Your task to perform on an android device: Search for "bose soundlink" on newegg.com, select the first entry, and add it to the cart. Image 0: 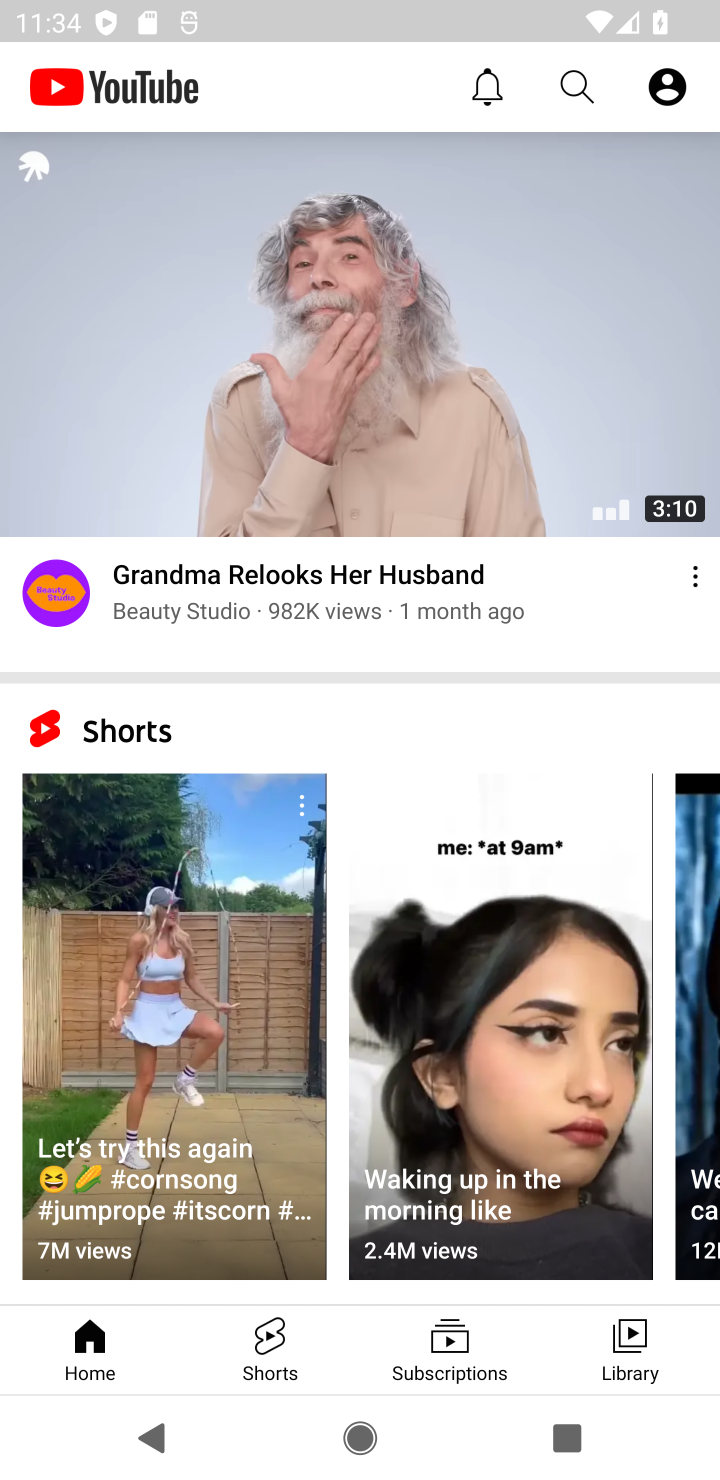
Step 0: press home button
Your task to perform on an android device: Search for "bose soundlink" on newegg.com, select the first entry, and add it to the cart. Image 1: 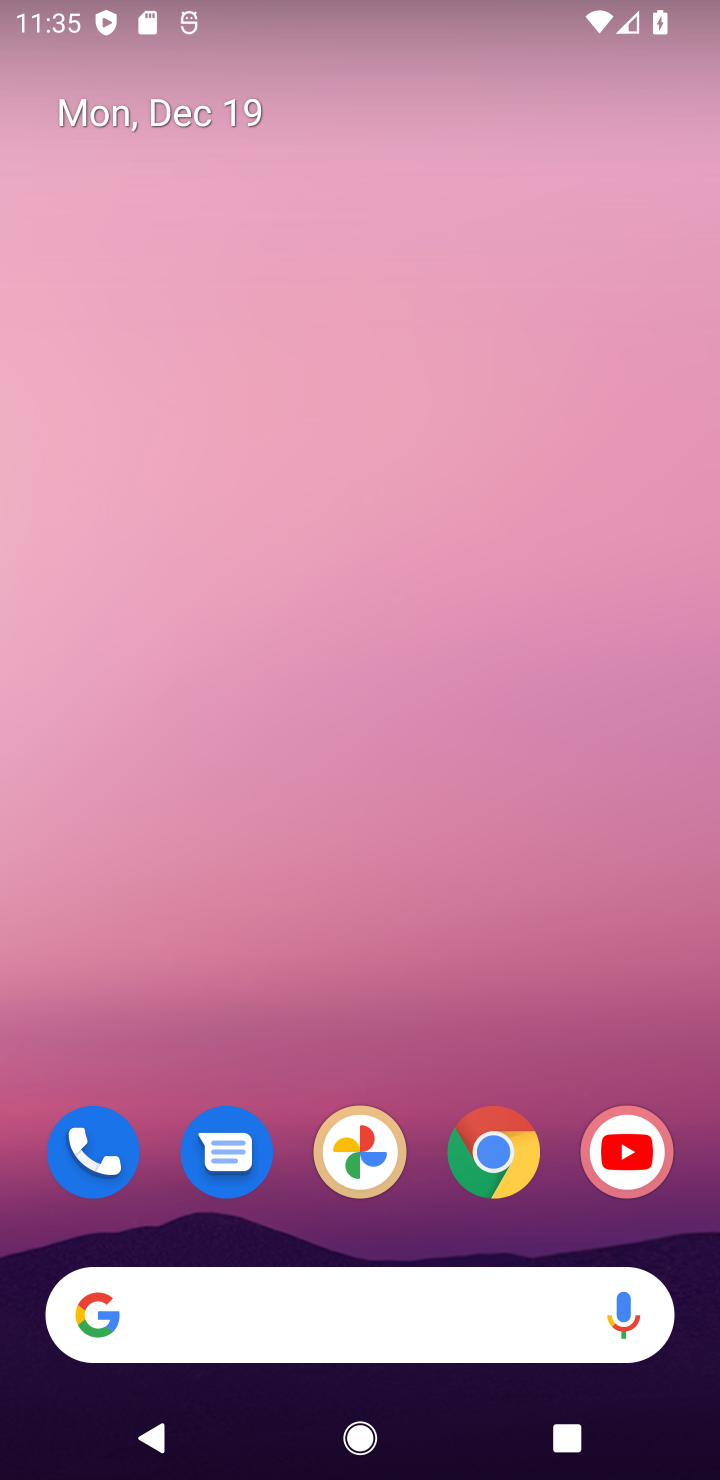
Step 1: click (477, 1132)
Your task to perform on an android device: Search for "bose soundlink" on newegg.com, select the first entry, and add it to the cart. Image 2: 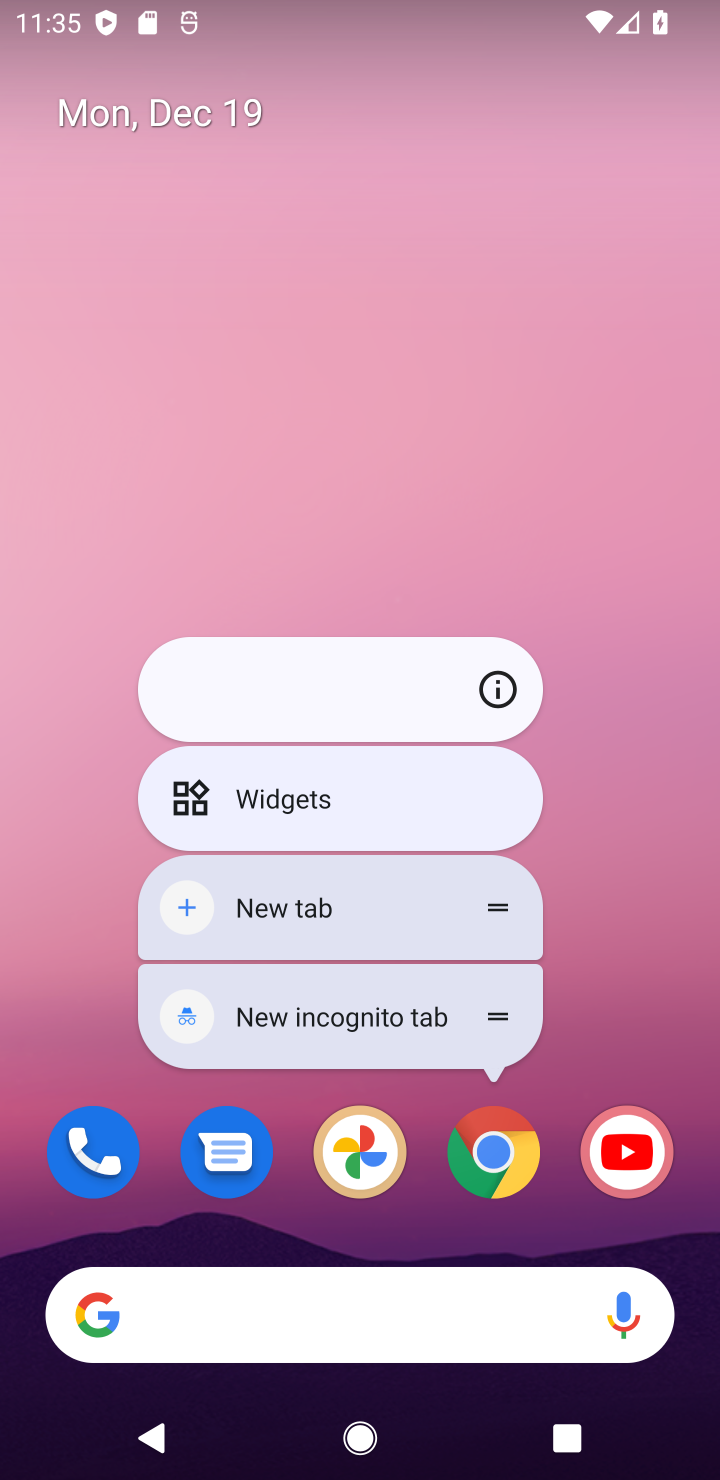
Step 2: click (493, 1141)
Your task to perform on an android device: Search for "bose soundlink" on newegg.com, select the first entry, and add it to the cart. Image 3: 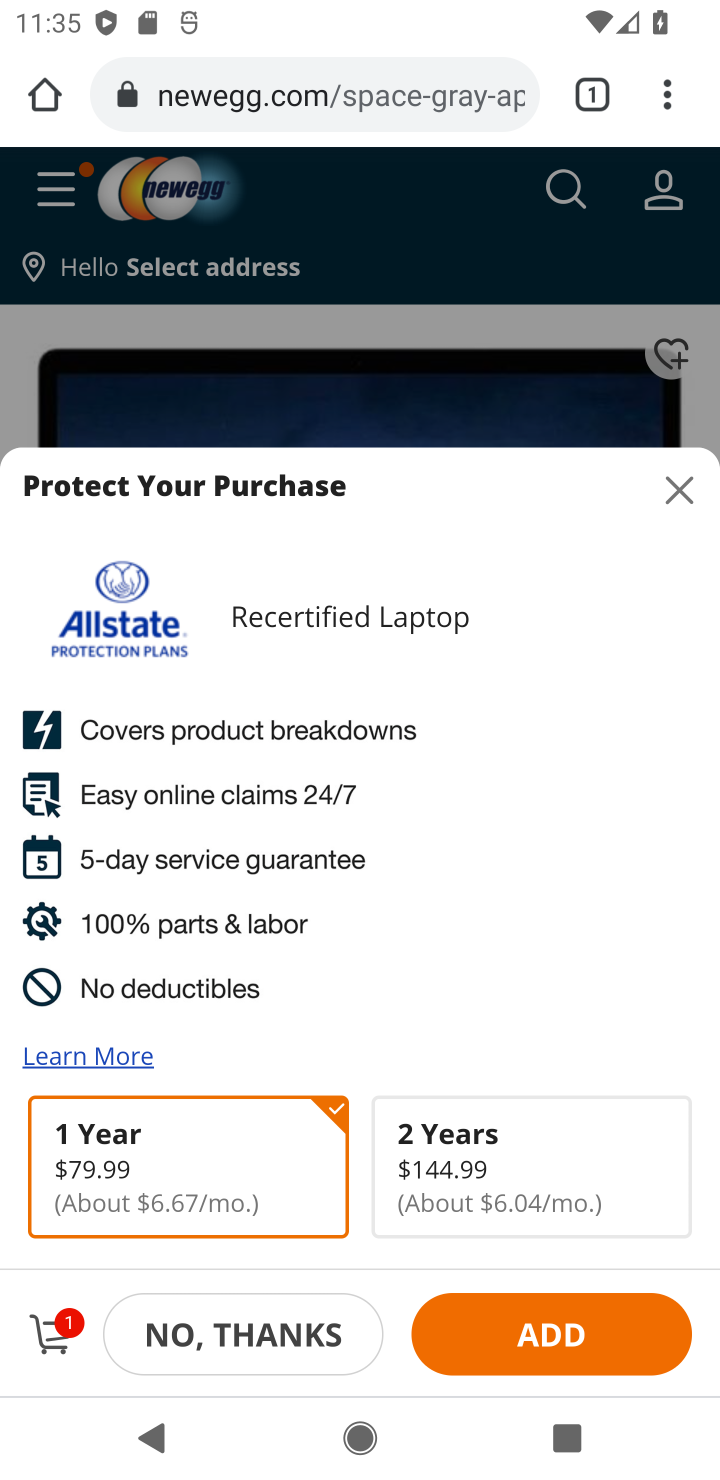
Step 3: click (679, 488)
Your task to perform on an android device: Search for "bose soundlink" on newegg.com, select the first entry, and add it to the cart. Image 4: 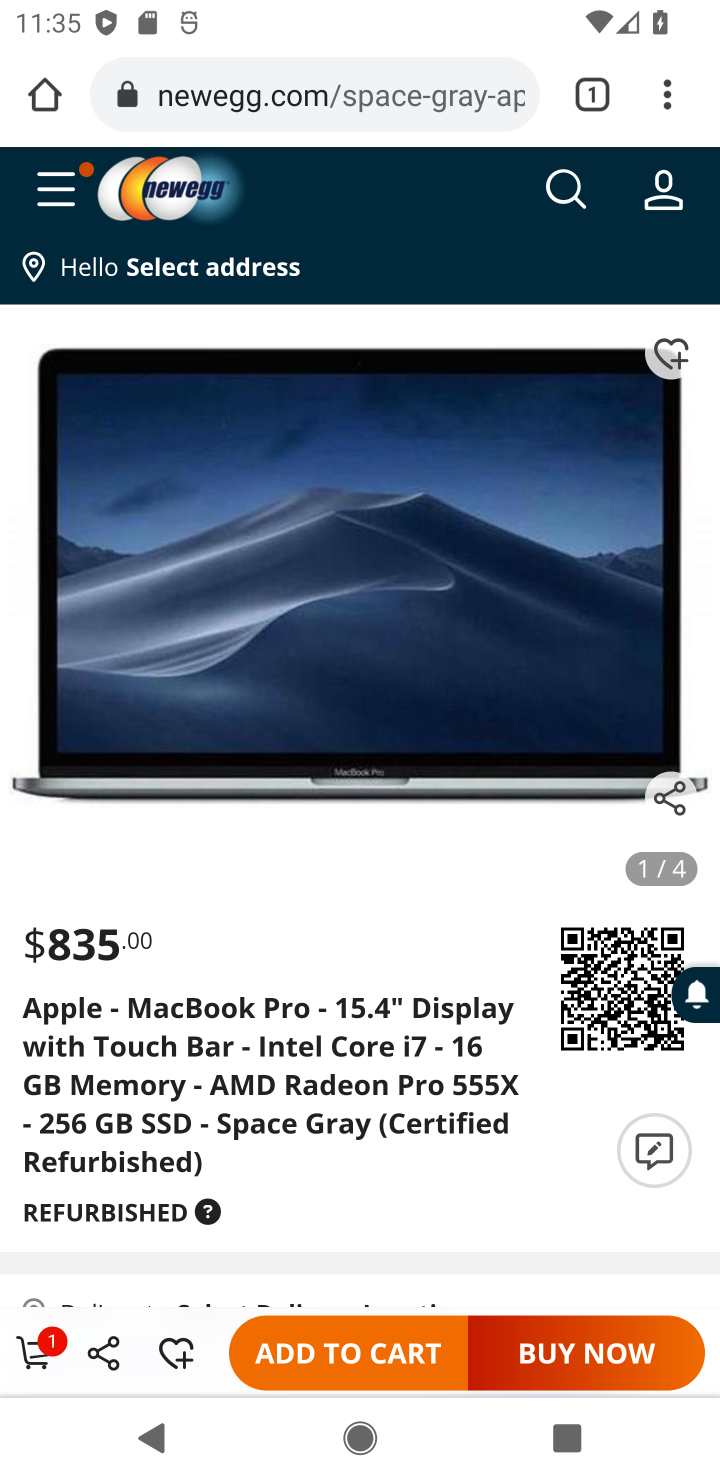
Step 4: click (570, 187)
Your task to perform on an android device: Search for "bose soundlink" on newegg.com, select the first entry, and add it to the cart. Image 5: 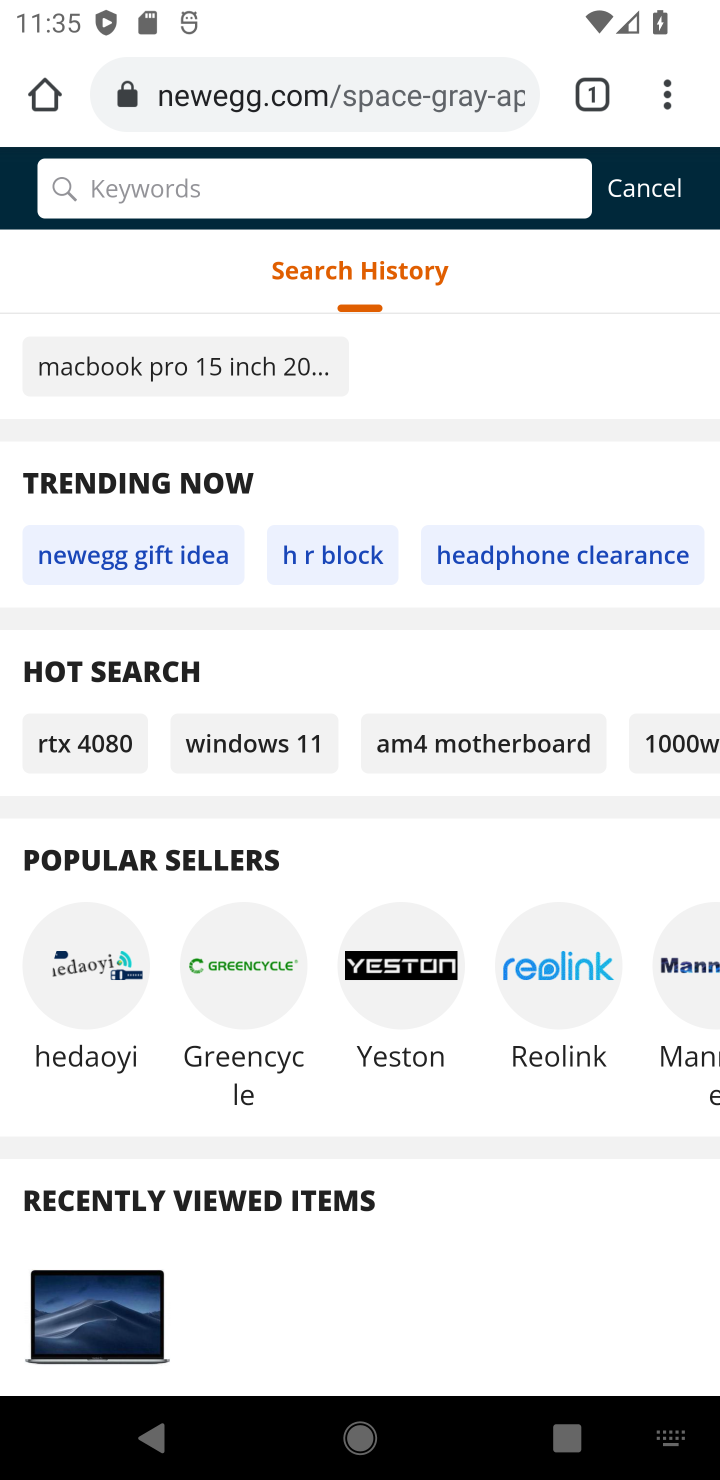
Step 5: click (257, 181)
Your task to perform on an android device: Search for "bose soundlink" on newegg.com, select the first entry, and add it to the cart. Image 6: 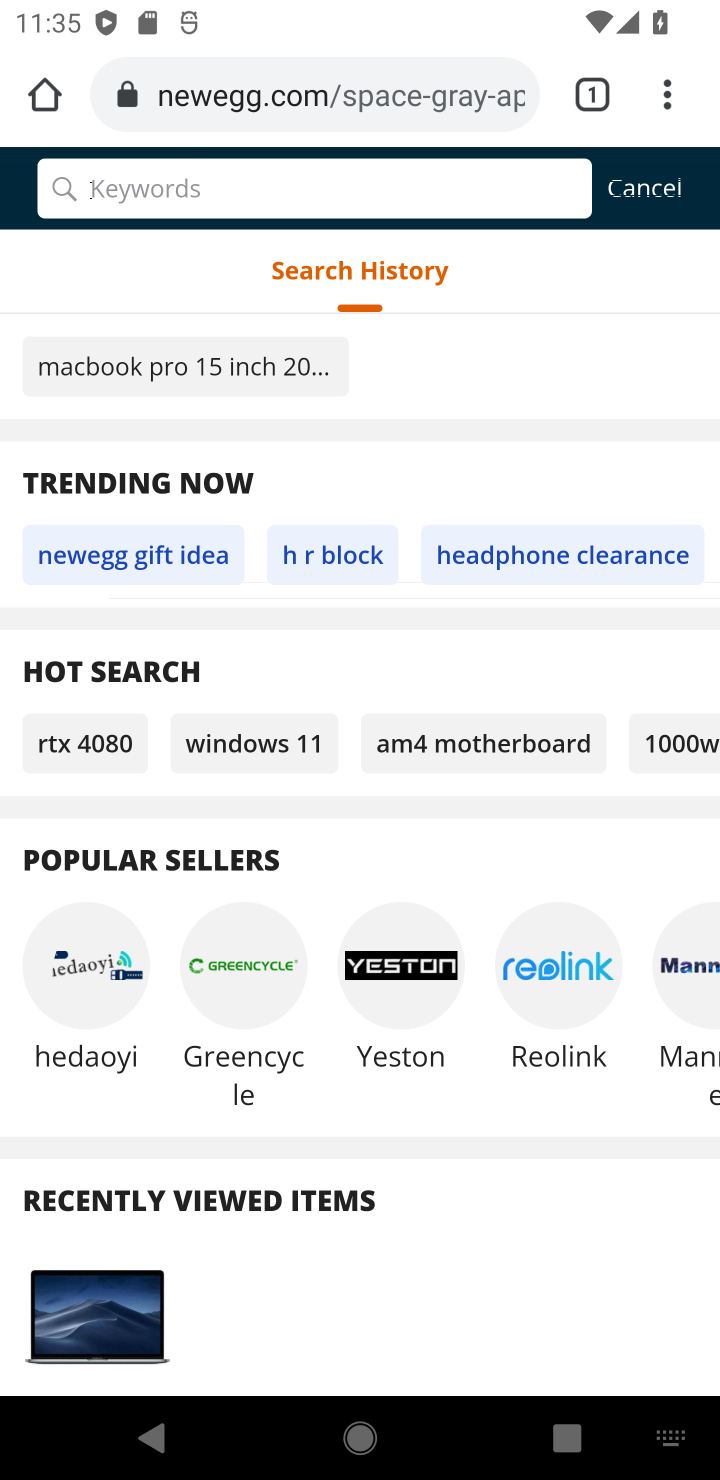
Step 6: type "bose soundlink"
Your task to perform on an android device: Search for "bose soundlink" on newegg.com, select the first entry, and add it to the cart. Image 7: 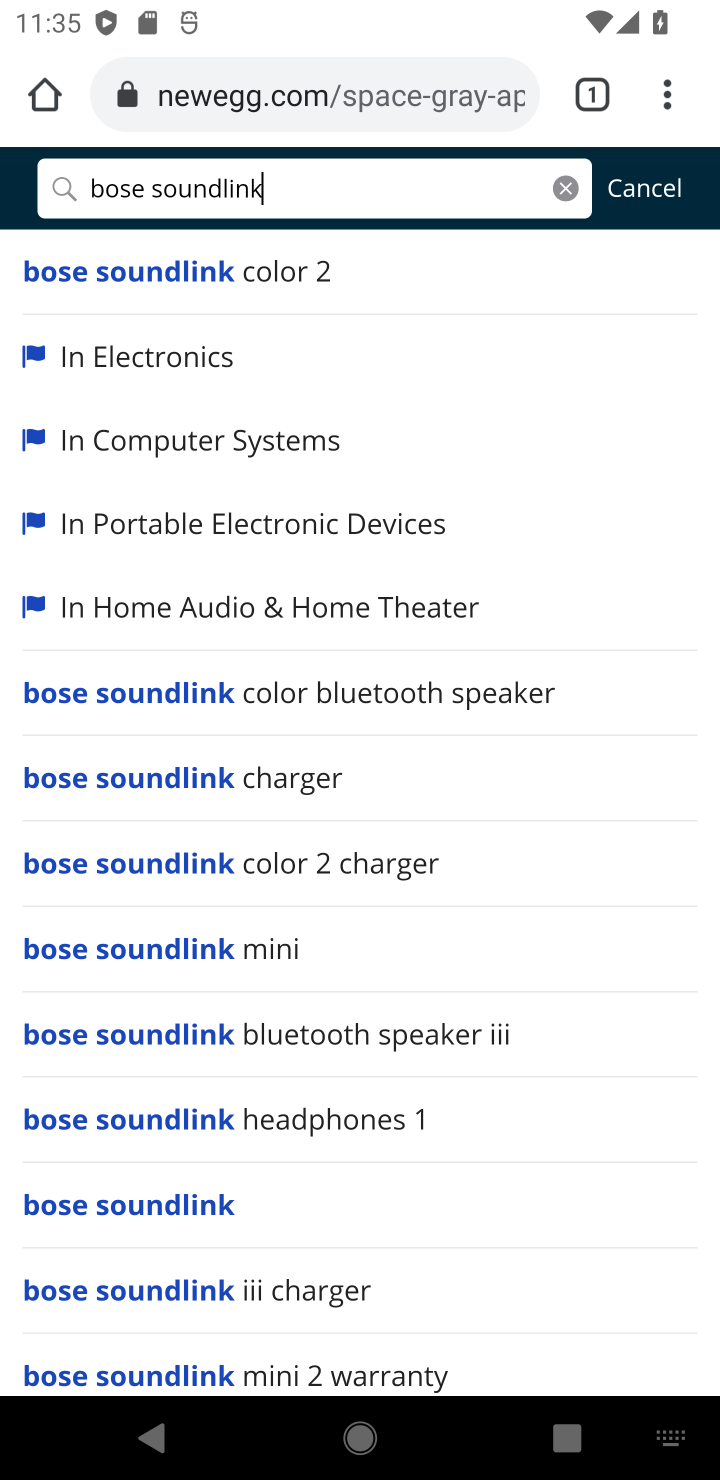
Step 7: click (201, 269)
Your task to perform on an android device: Search for "bose soundlink" on newegg.com, select the first entry, and add it to the cart. Image 8: 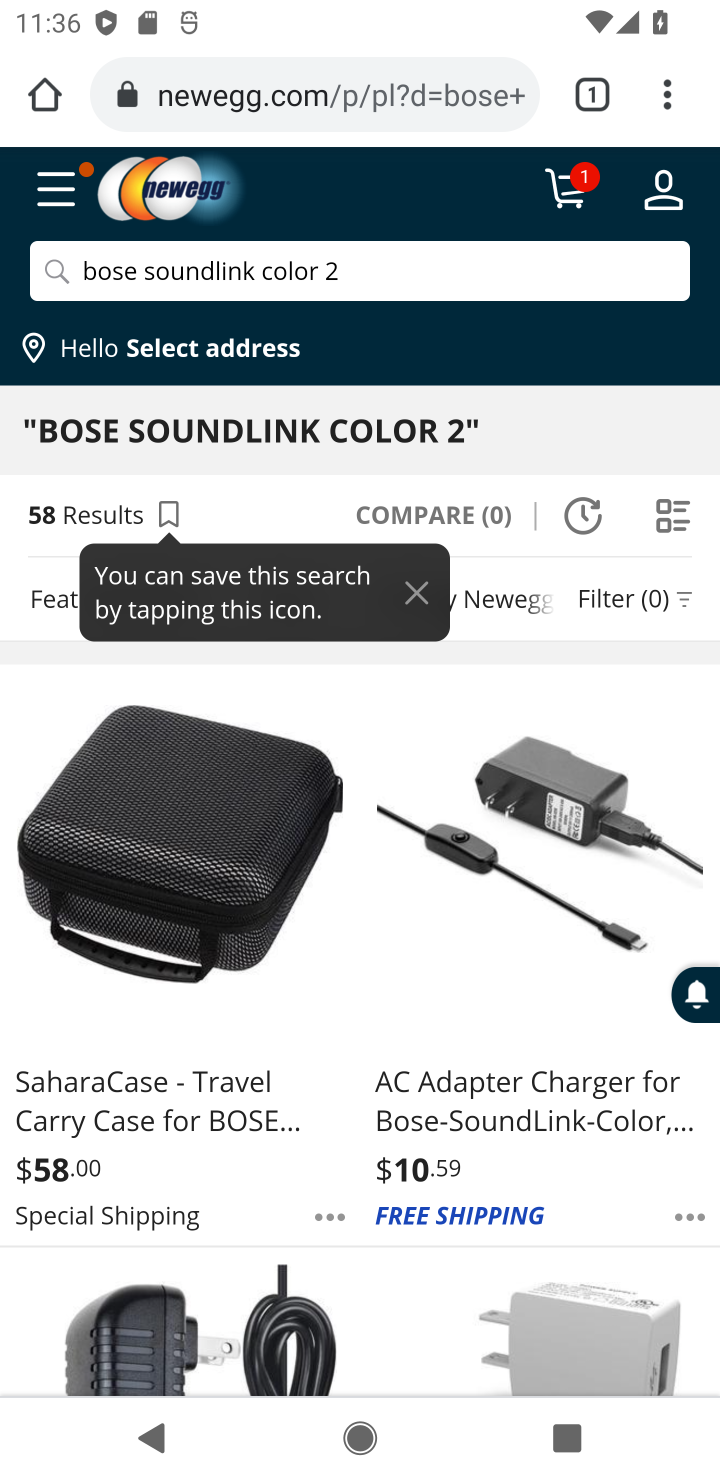
Step 8: click (235, 868)
Your task to perform on an android device: Search for "bose soundlink" on newegg.com, select the first entry, and add it to the cart. Image 9: 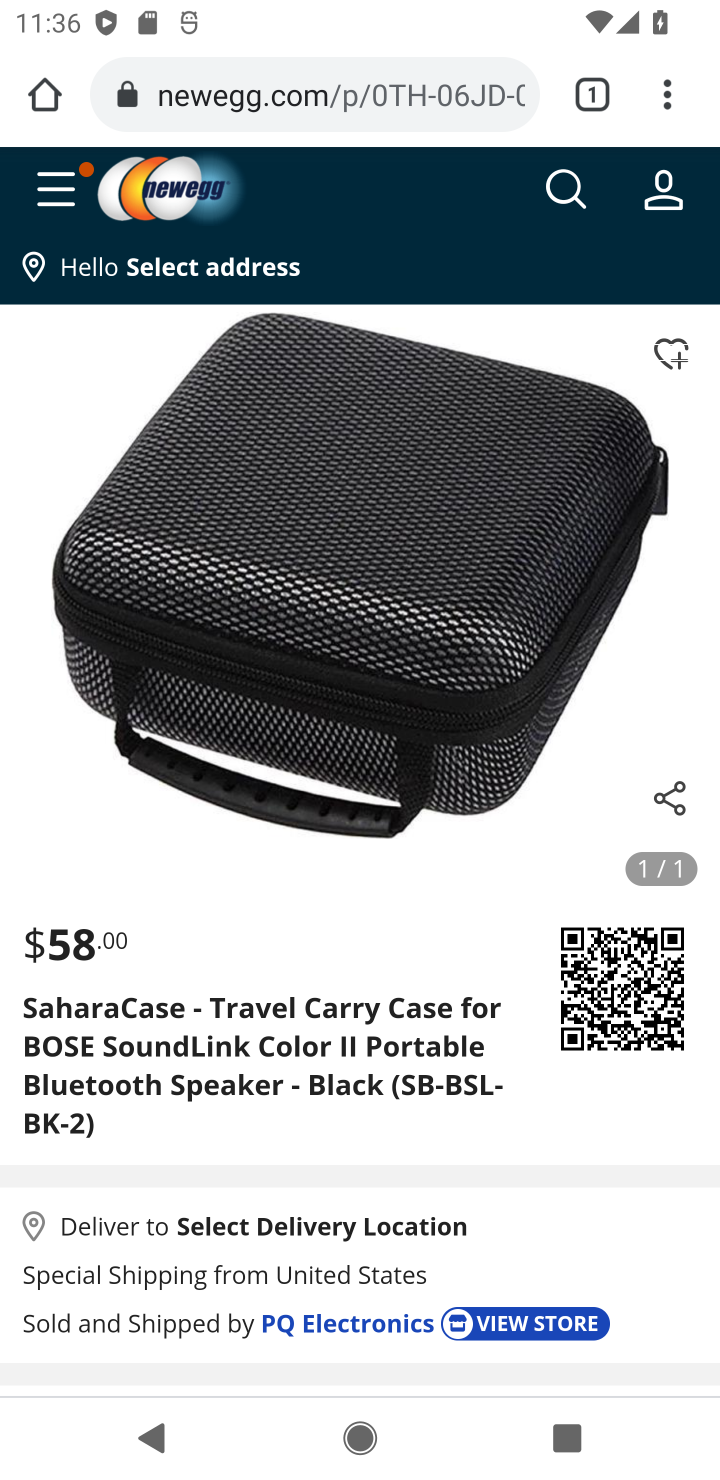
Step 9: drag from (372, 1164) to (424, 471)
Your task to perform on an android device: Search for "bose soundlink" on newegg.com, select the first entry, and add it to the cart. Image 10: 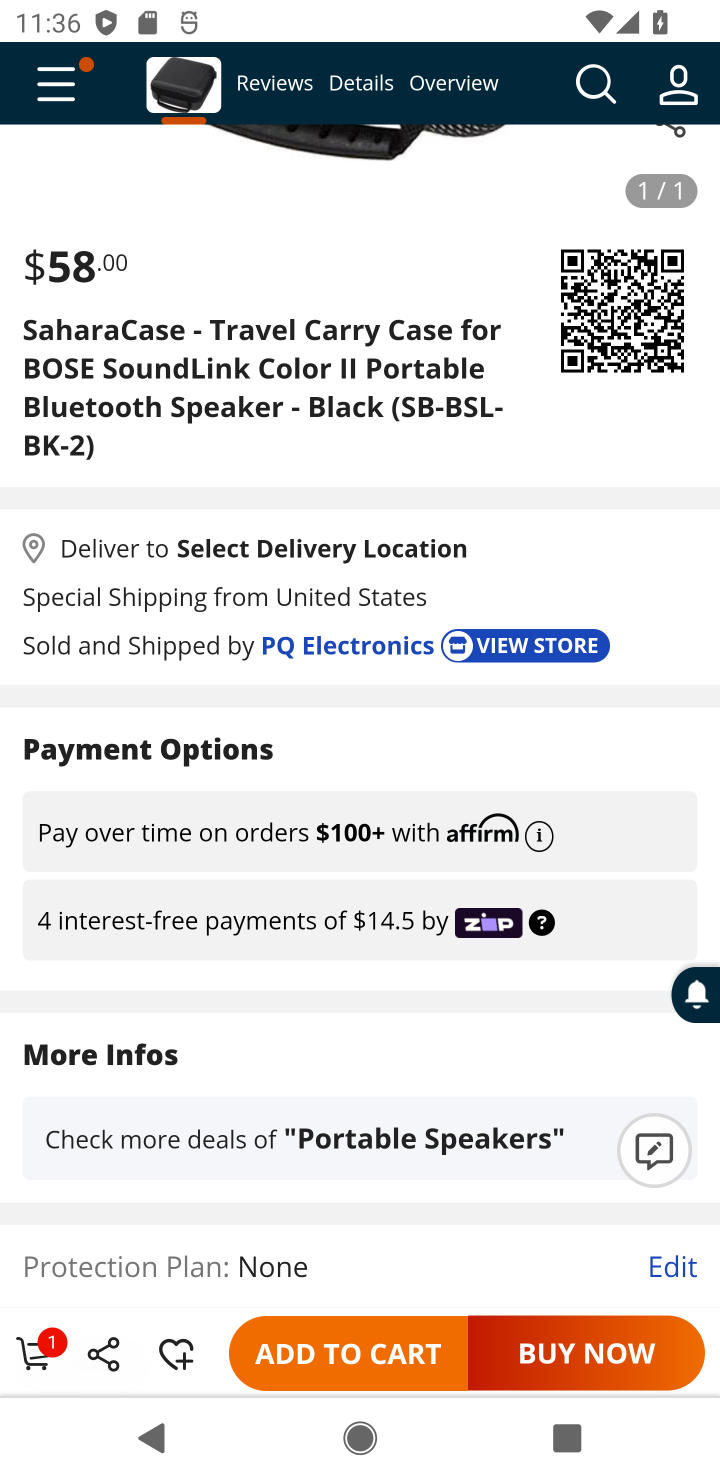
Step 10: click (337, 1351)
Your task to perform on an android device: Search for "bose soundlink" on newegg.com, select the first entry, and add it to the cart. Image 11: 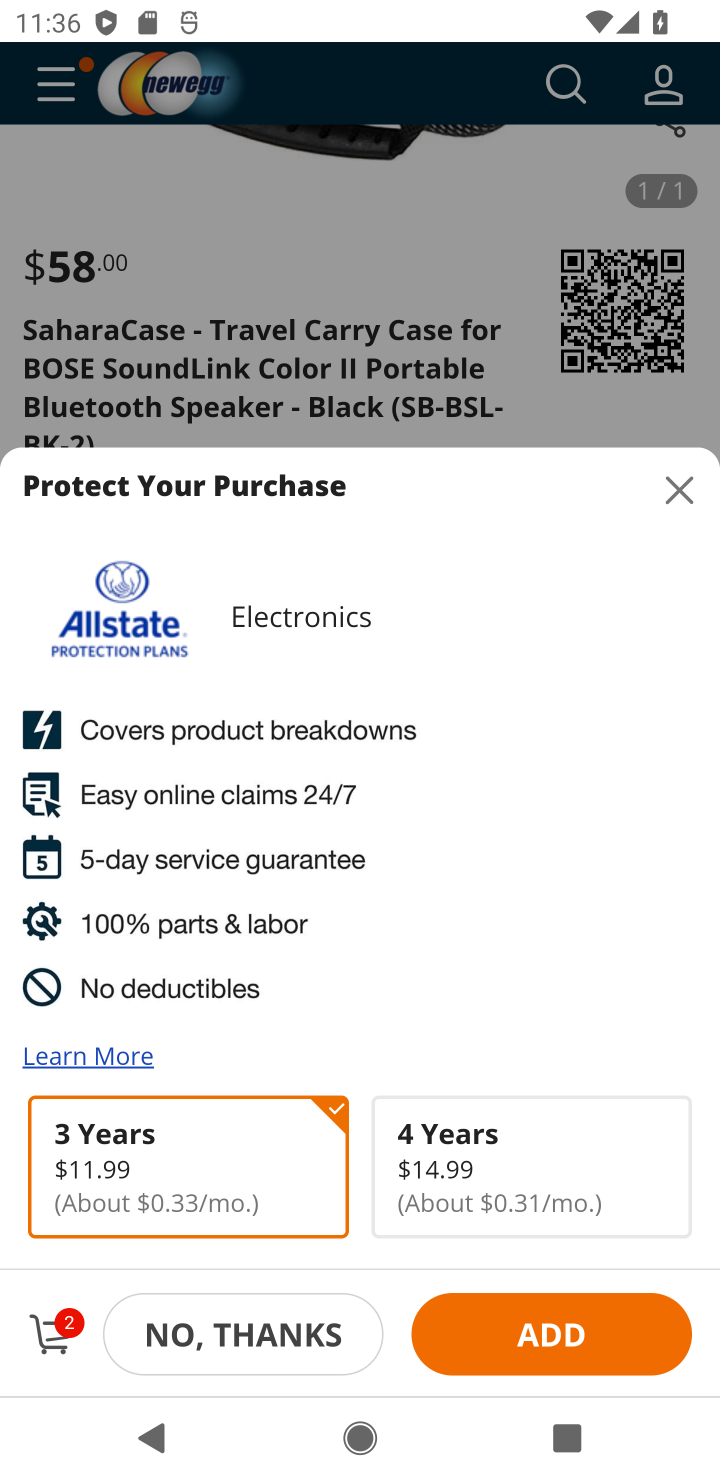
Step 11: click (66, 1330)
Your task to perform on an android device: Search for "bose soundlink" on newegg.com, select the first entry, and add it to the cart. Image 12: 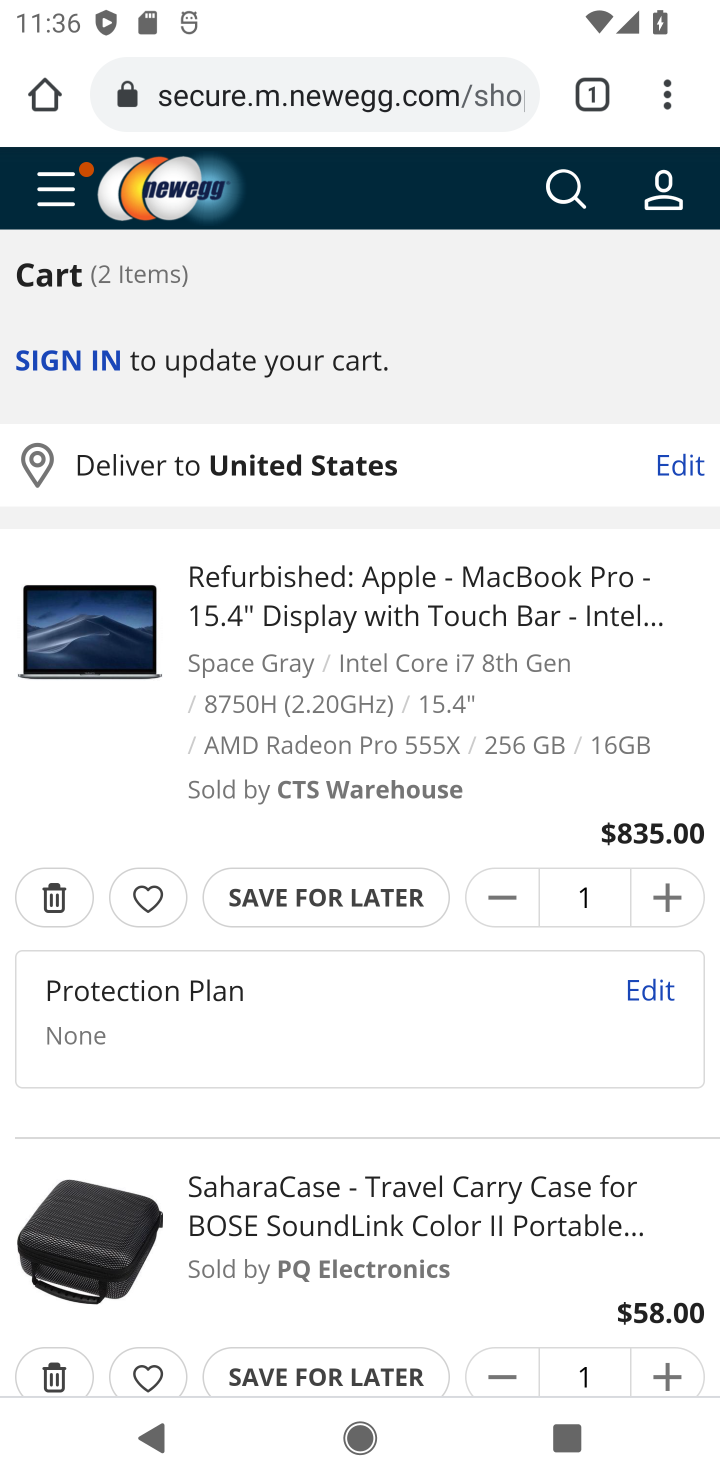
Step 12: task complete